Your task to perform on an android device: search for starred emails in the gmail app Image 0: 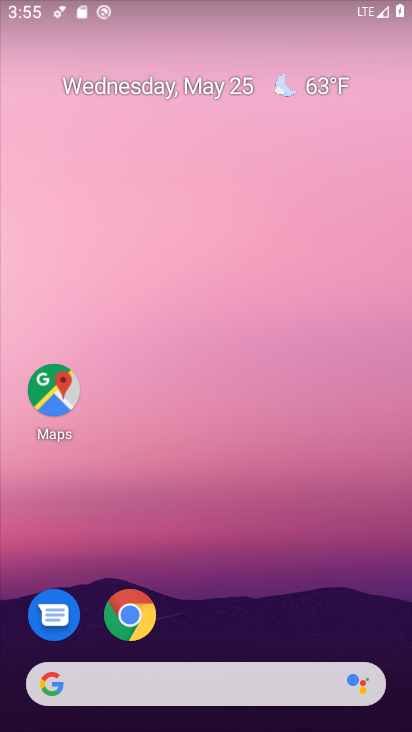
Step 0: drag from (300, 558) to (212, 6)
Your task to perform on an android device: search for starred emails in the gmail app Image 1: 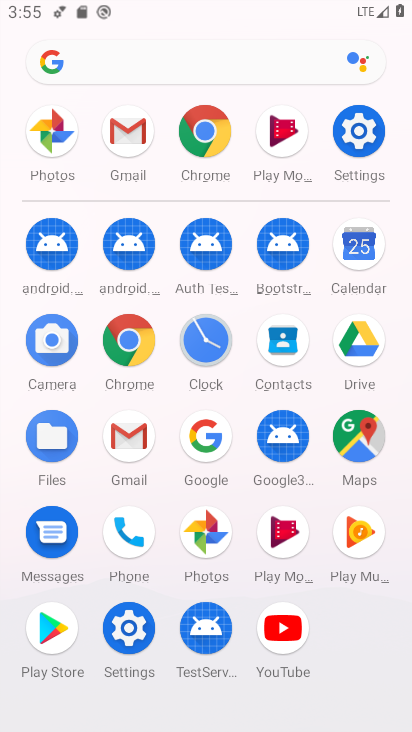
Step 1: click (129, 440)
Your task to perform on an android device: search for starred emails in the gmail app Image 2: 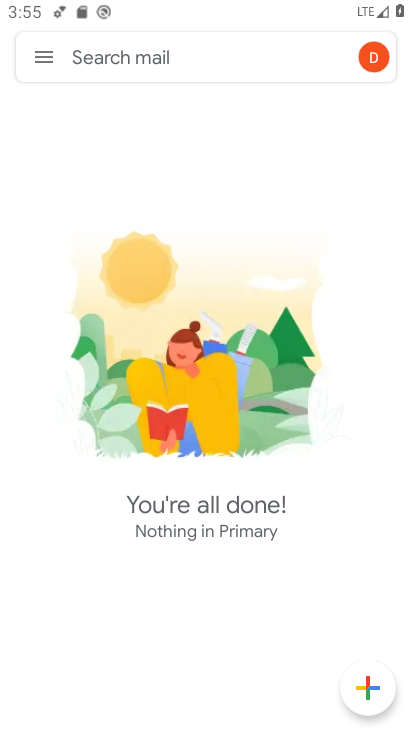
Step 2: click (142, 61)
Your task to perform on an android device: search for starred emails in the gmail app Image 3: 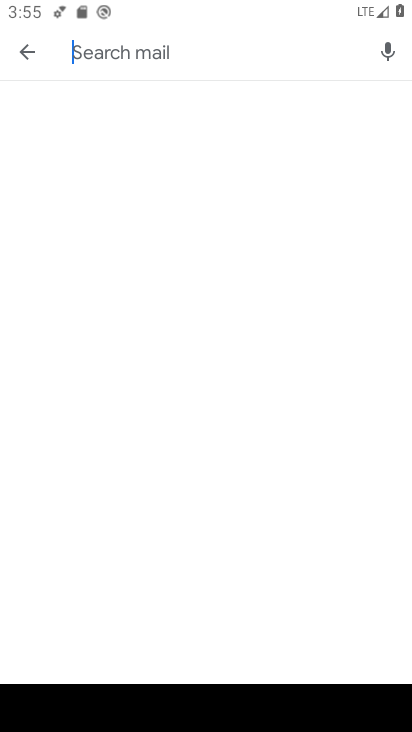
Step 3: type "starred"
Your task to perform on an android device: search for starred emails in the gmail app Image 4: 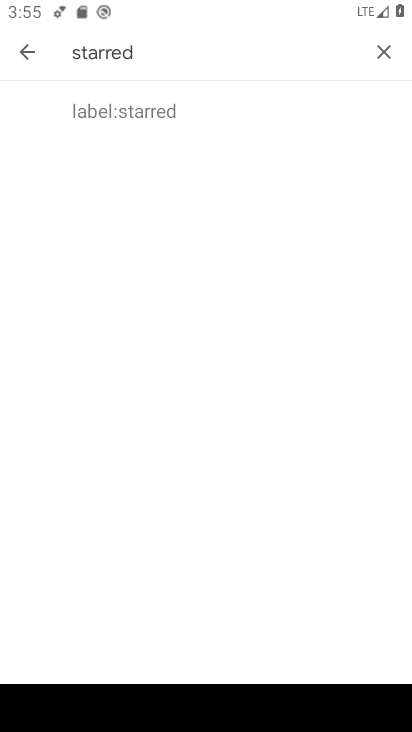
Step 4: click (124, 99)
Your task to perform on an android device: search for starred emails in the gmail app Image 5: 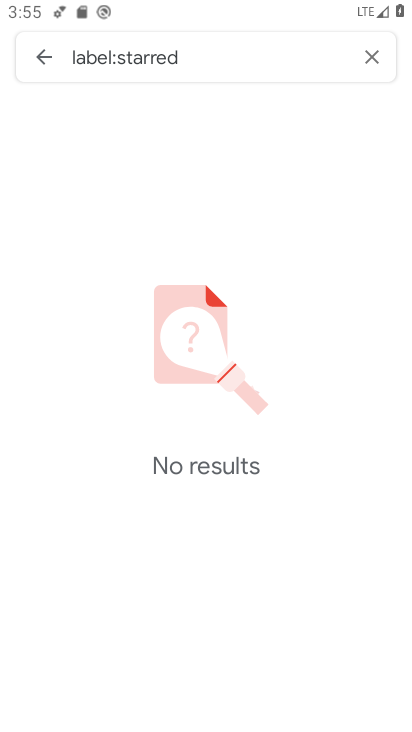
Step 5: task complete